Your task to perform on an android device: Open Yahoo.com Image 0: 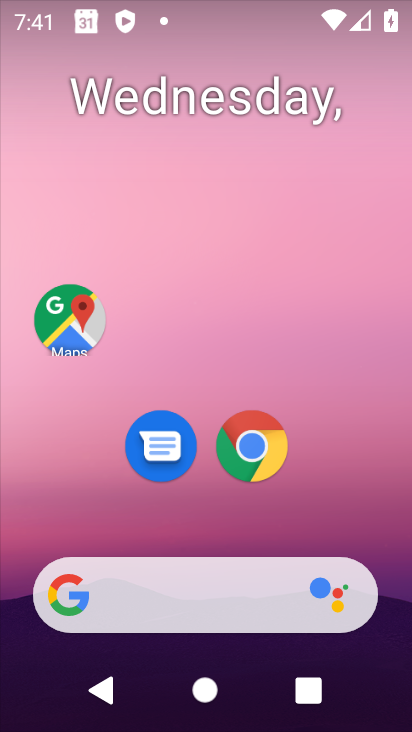
Step 0: drag from (342, 530) to (390, 79)
Your task to perform on an android device: Open Yahoo.com Image 1: 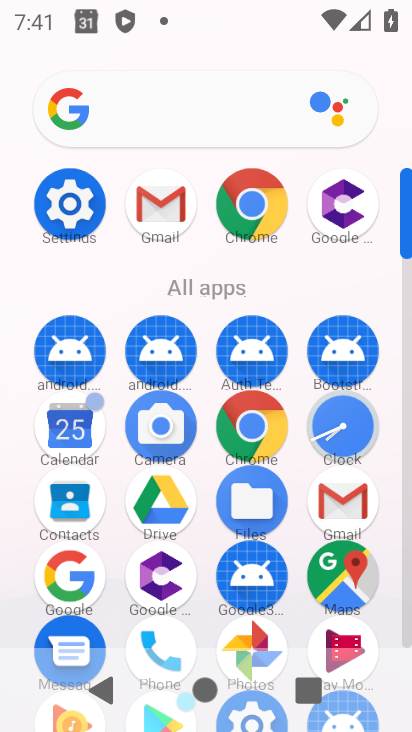
Step 1: click (254, 219)
Your task to perform on an android device: Open Yahoo.com Image 2: 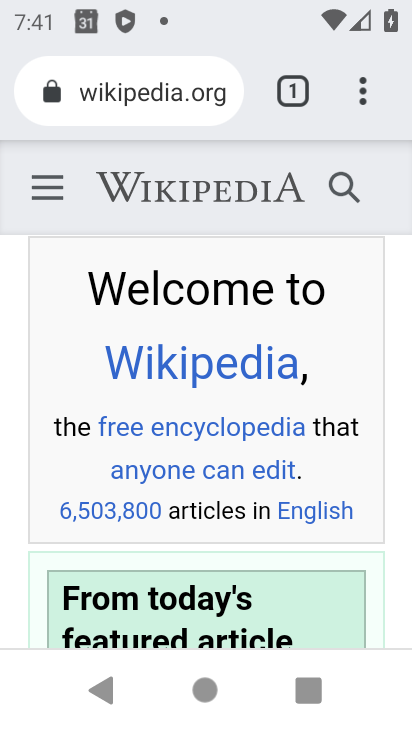
Step 2: click (171, 91)
Your task to perform on an android device: Open Yahoo.com Image 3: 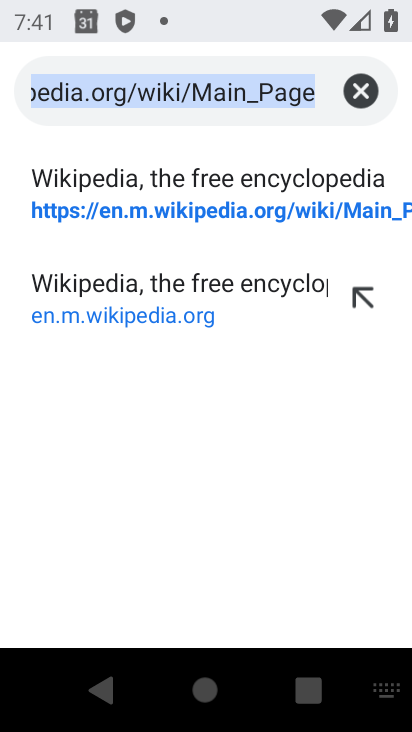
Step 3: click (366, 92)
Your task to perform on an android device: Open Yahoo.com Image 4: 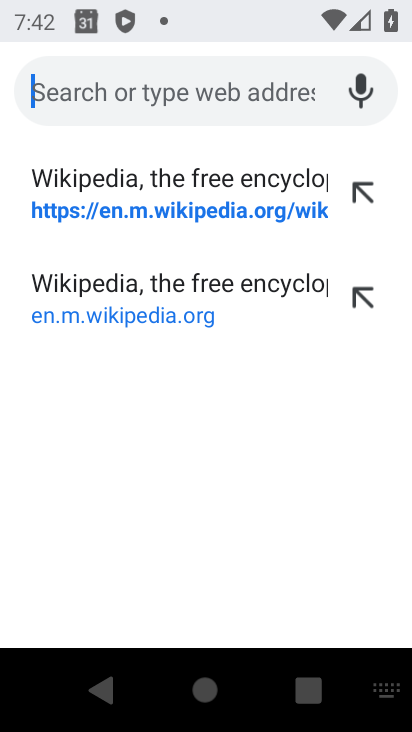
Step 4: type "yahoo"
Your task to perform on an android device: Open Yahoo.com Image 5: 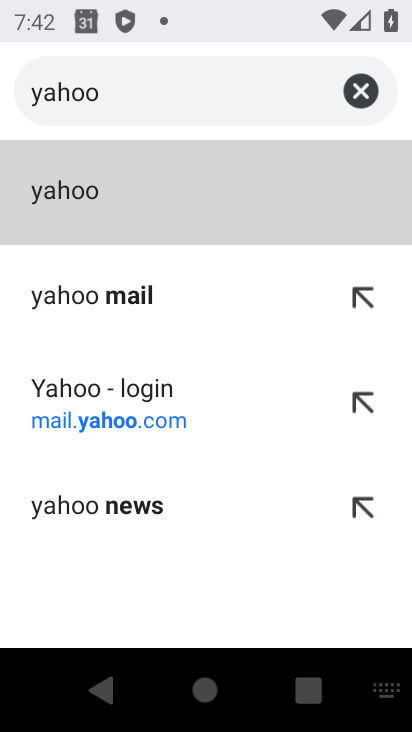
Step 5: click (143, 310)
Your task to perform on an android device: Open Yahoo.com Image 6: 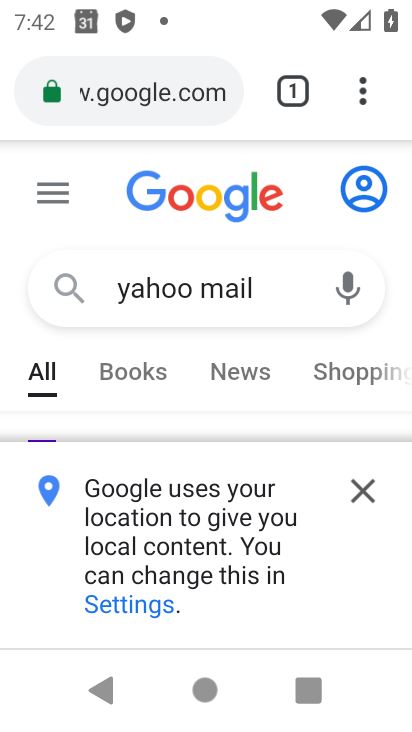
Step 6: click (361, 507)
Your task to perform on an android device: Open Yahoo.com Image 7: 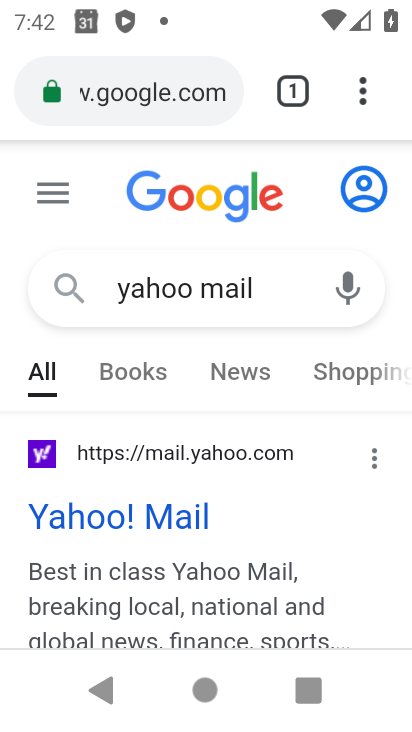
Step 7: click (179, 515)
Your task to perform on an android device: Open Yahoo.com Image 8: 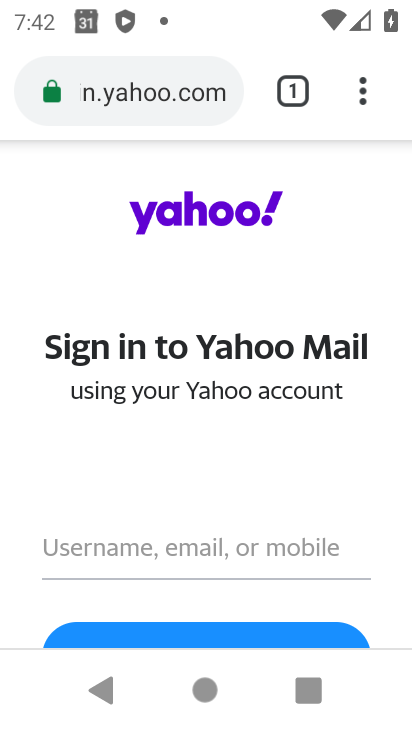
Step 8: task complete